Your task to perform on an android device: change text size in settings app Image 0: 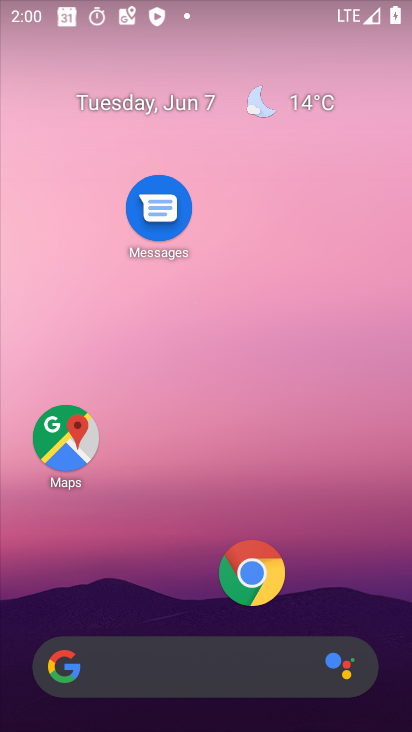
Step 0: press home button
Your task to perform on an android device: change text size in settings app Image 1: 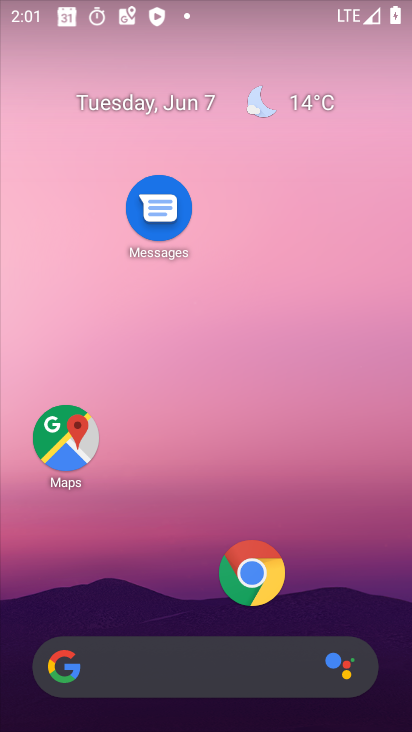
Step 1: click (179, 627)
Your task to perform on an android device: change text size in settings app Image 2: 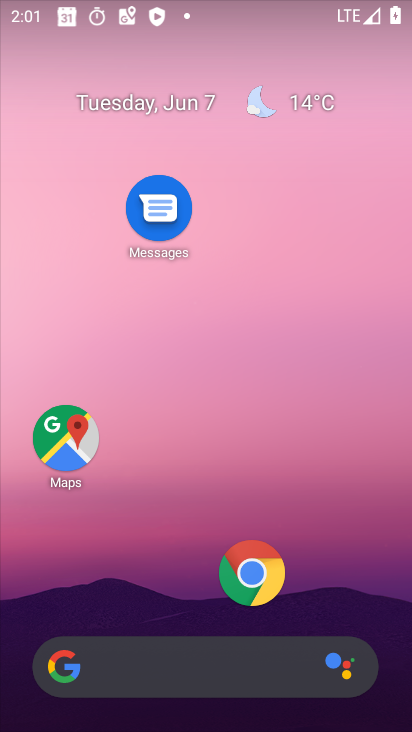
Step 2: drag from (231, 183) to (256, 49)
Your task to perform on an android device: change text size in settings app Image 3: 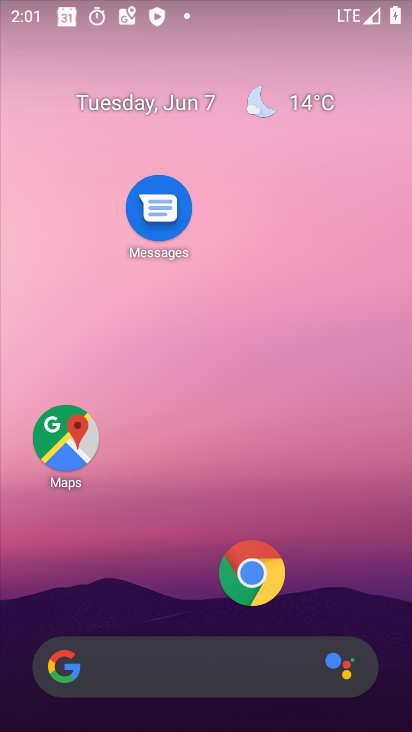
Step 3: drag from (309, 617) to (307, 9)
Your task to perform on an android device: change text size in settings app Image 4: 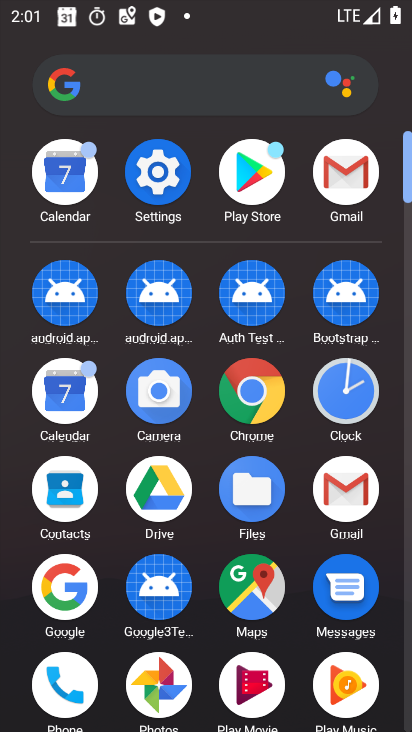
Step 4: click (155, 164)
Your task to perform on an android device: change text size in settings app Image 5: 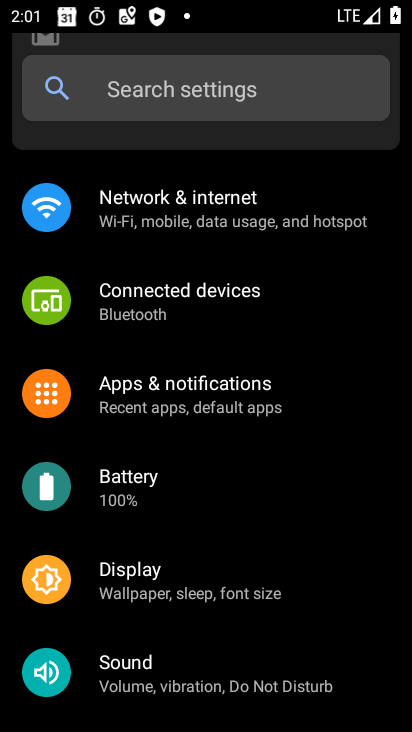
Step 5: drag from (191, 372) to (197, 282)
Your task to perform on an android device: change text size in settings app Image 6: 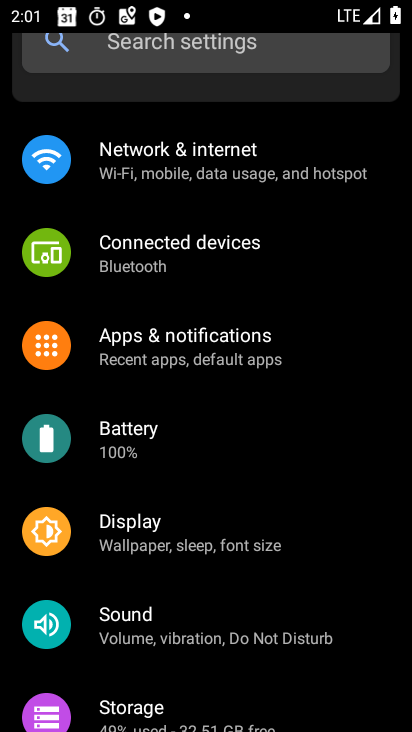
Step 6: click (130, 524)
Your task to perform on an android device: change text size in settings app Image 7: 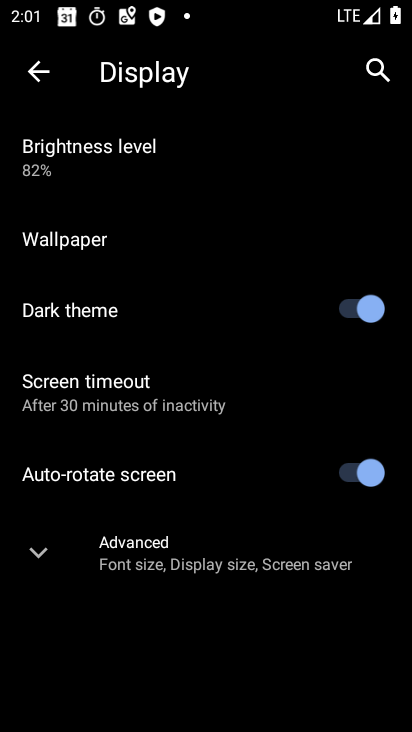
Step 7: click (58, 553)
Your task to perform on an android device: change text size in settings app Image 8: 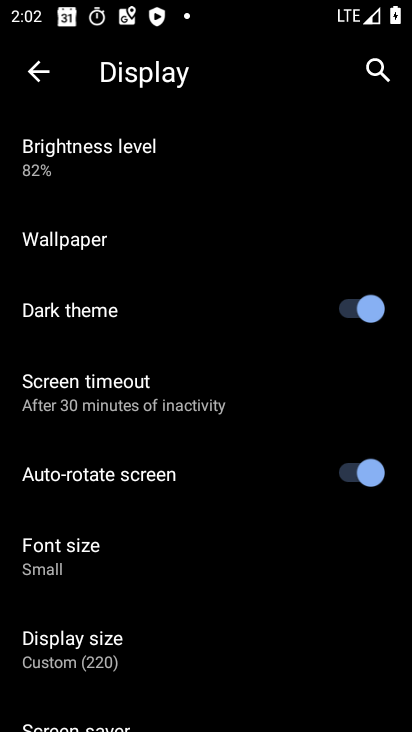
Step 8: click (88, 563)
Your task to perform on an android device: change text size in settings app Image 9: 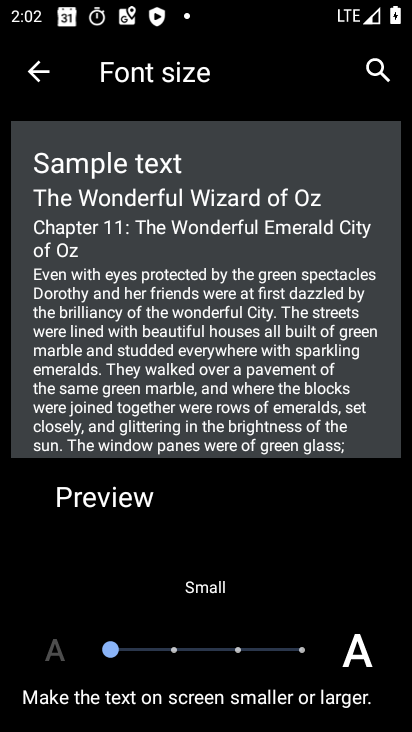
Step 9: click (165, 640)
Your task to perform on an android device: change text size in settings app Image 10: 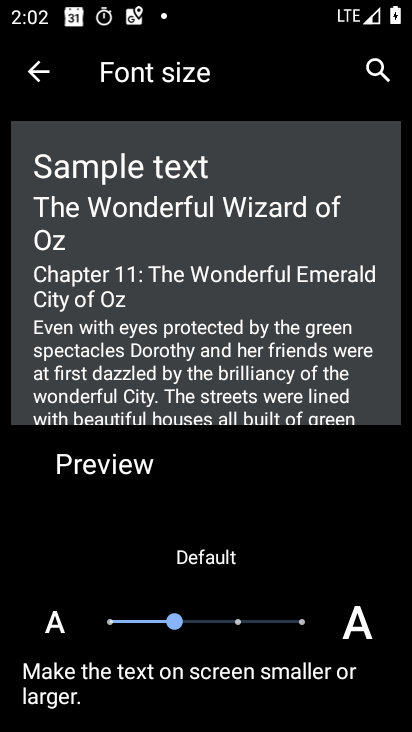
Step 10: task complete